Your task to perform on an android device: check android version Image 0: 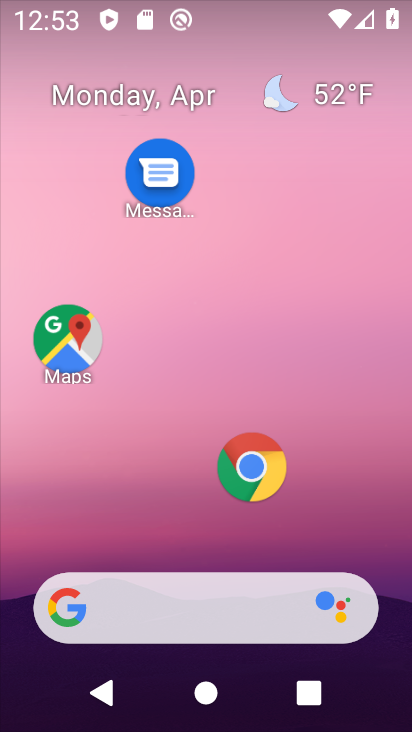
Step 0: drag from (206, 513) to (221, 166)
Your task to perform on an android device: check android version Image 1: 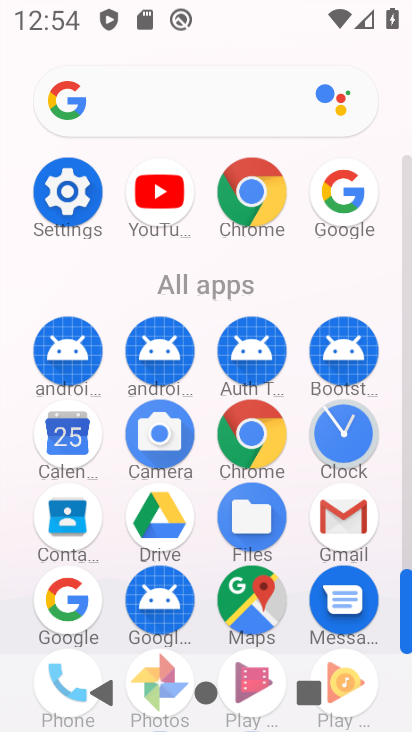
Step 1: click (66, 194)
Your task to perform on an android device: check android version Image 2: 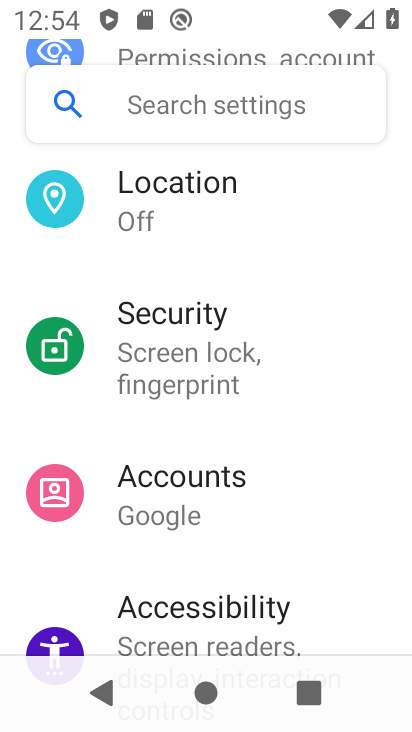
Step 2: drag from (248, 609) to (254, 272)
Your task to perform on an android device: check android version Image 3: 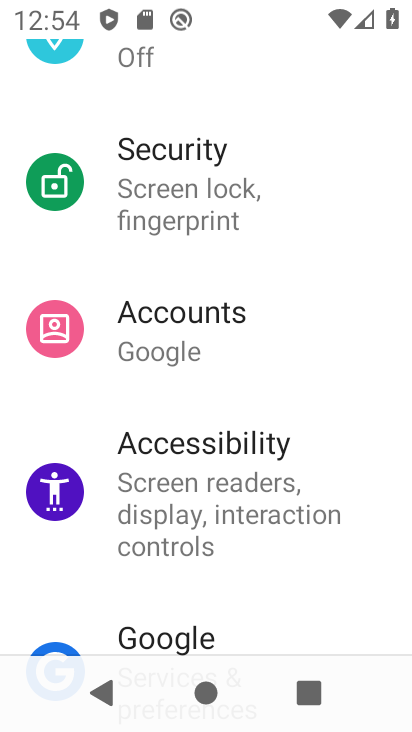
Step 3: drag from (242, 560) to (237, 227)
Your task to perform on an android device: check android version Image 4: 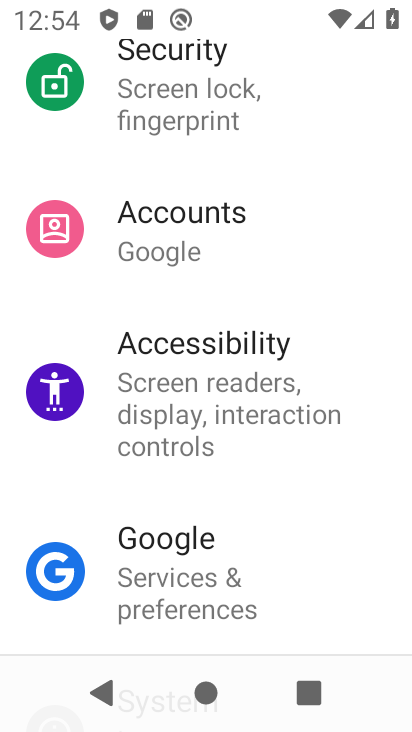
Step 4: drag from (214, 566) to (230, 214)
Your task to perform on an android device: check android version Image 5: 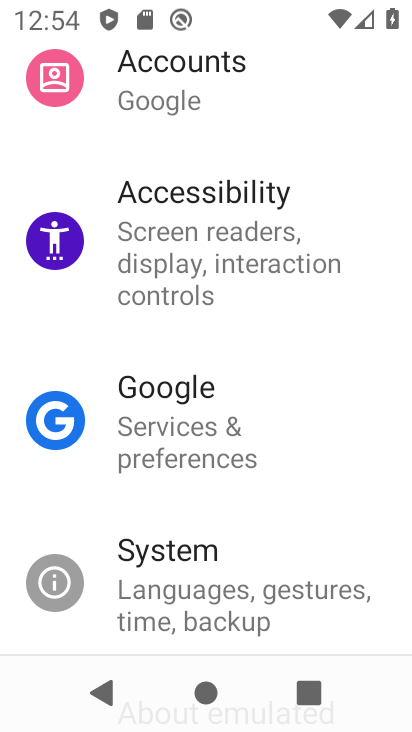
Step 5: drag from (249, 580) to (242, 269)
Your task to perform on an android device: check android version Image 6: 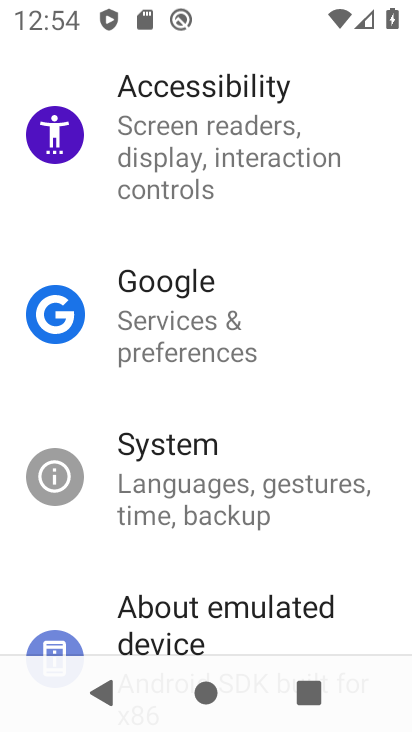
Step 6: drag from (217, 567) to (236, 250)
Your task to perform on an android device: check android version Image 7: 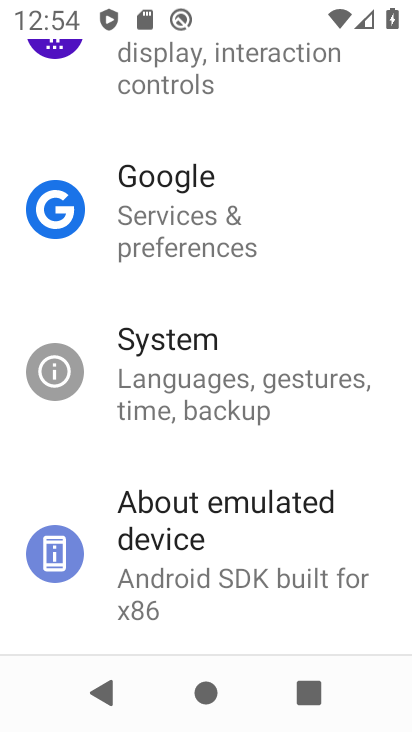
Step 7: drag from (232, 570) to (266, 262)
Your task to perform on an android device: check android version Image 8: 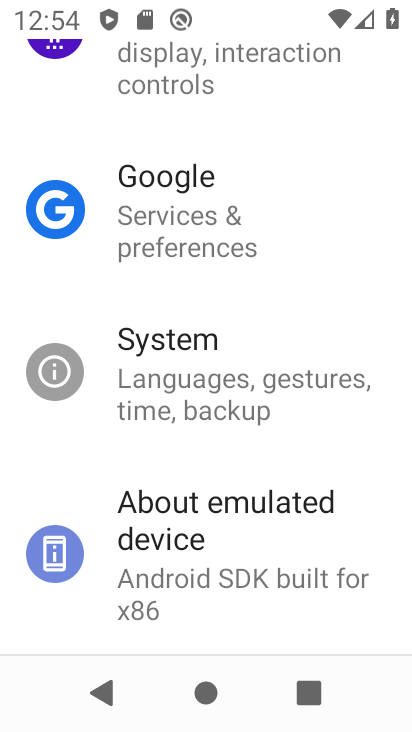
Step 8: click (220, 532)
Your task to perform on an android device: check android version Image 9: 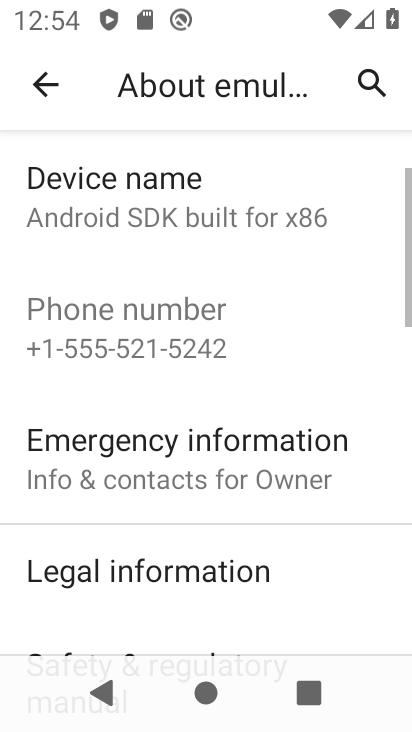
Step 9: drag from (247, 592) to (251, 268)
Your task to perform on an android device: check android version Image 10: 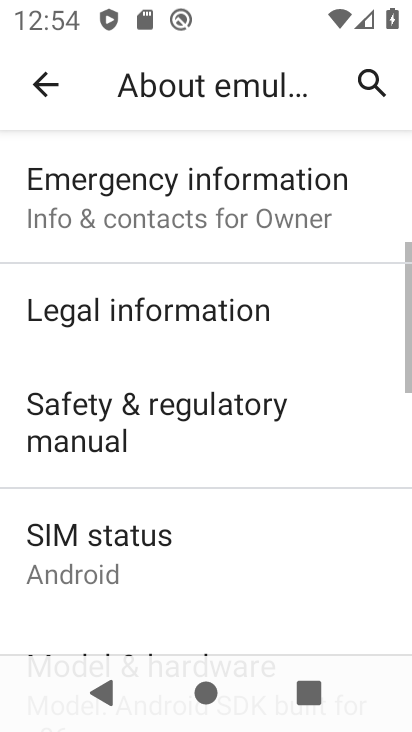
Step 10: drag from (229, 497) to (271, 269)
Your task to perform on an android device: check android version Image 11: 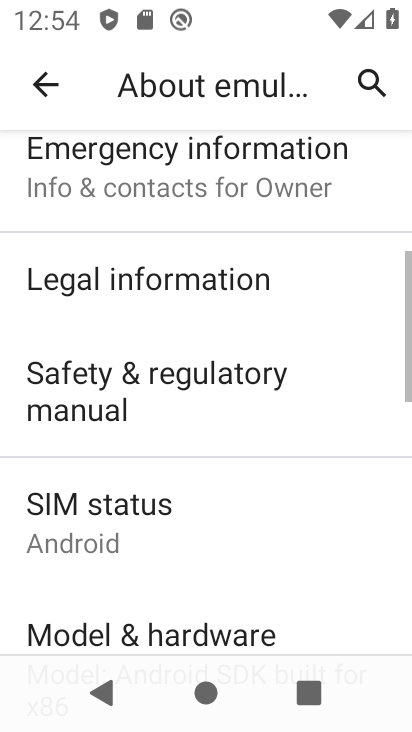
Step 11: drag from (254, 432) to (275, 276)
Your task to perform on an android device: check android version Image 12: 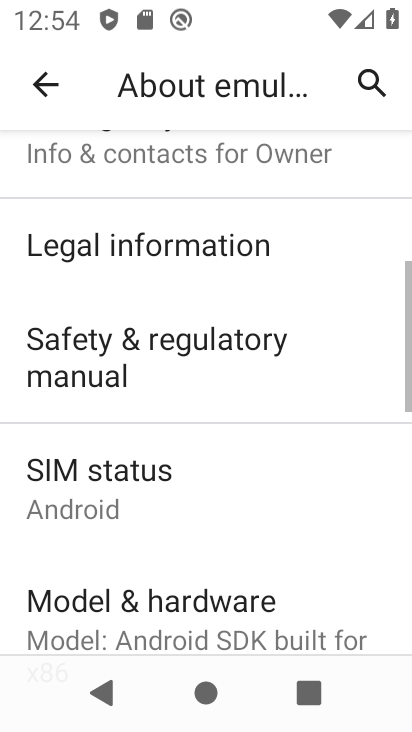
Step 12: drag from (249, 551) to (290, 277)
Your task to perform on an android device: check android version Image 13: 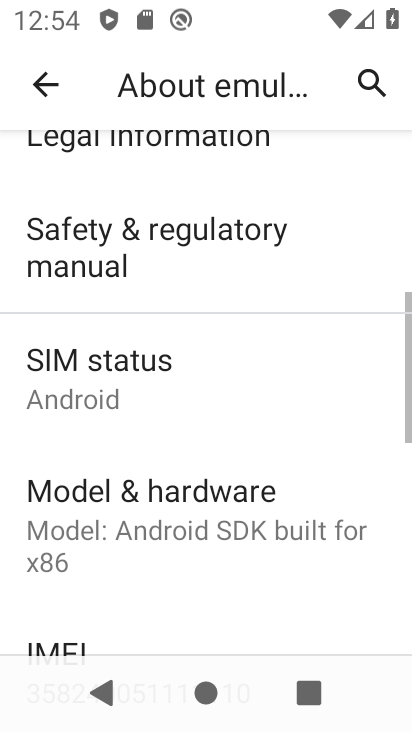
Step 13: drag from (280, 496) to (327, 292)
Your task to perform on an android device: check android version Image 14: 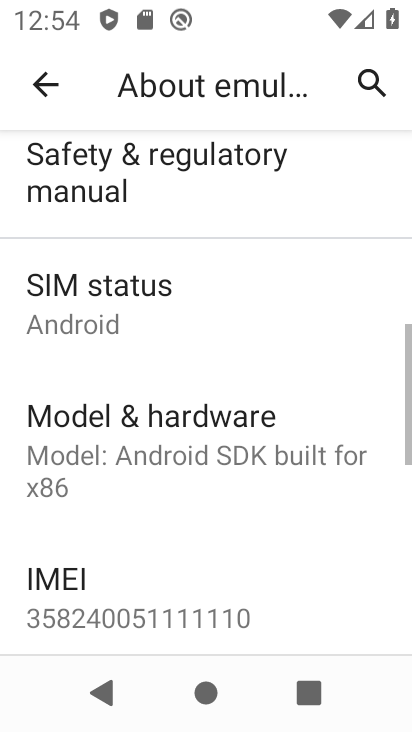
Step 14: drag from (276, 481) to (374, 269)
Your task to perform on an android device: check android version Image 15: 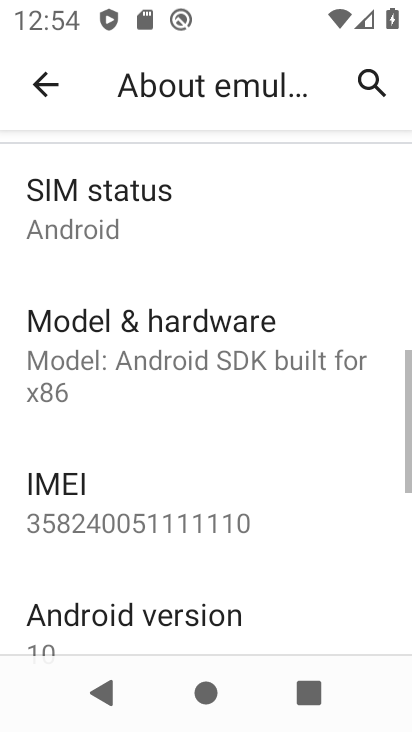
Step 15: drag from (256, 543) to (312, 237)
Your task to perform on an android device: check android version Image 16: 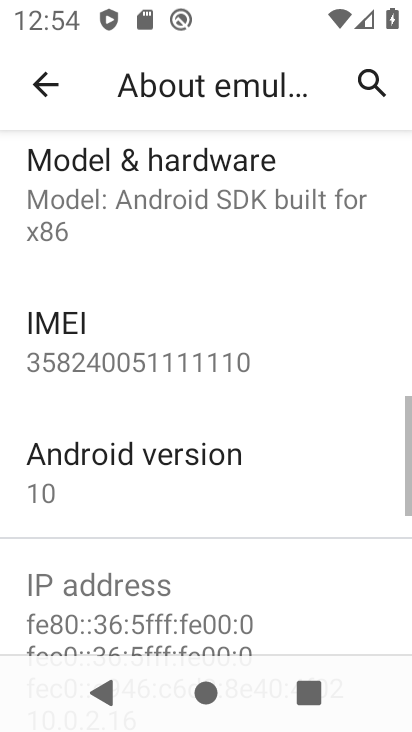
Step 16: click (203, 462)
Your task to perform on an android device: check android version Image 17: 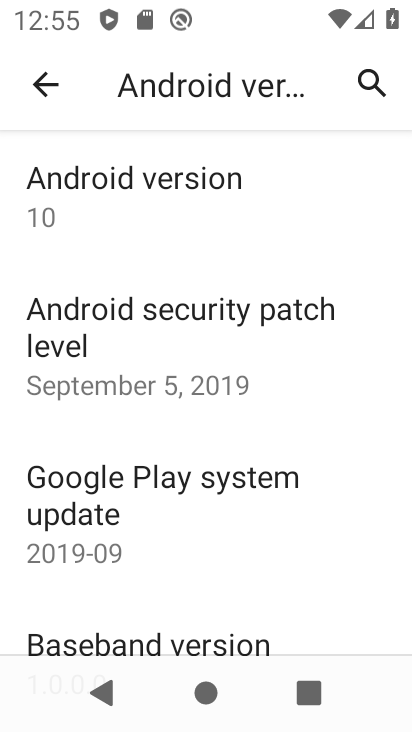
Step 17: click (109, 223)
Your task to perform on an android device: check android version Image 18: 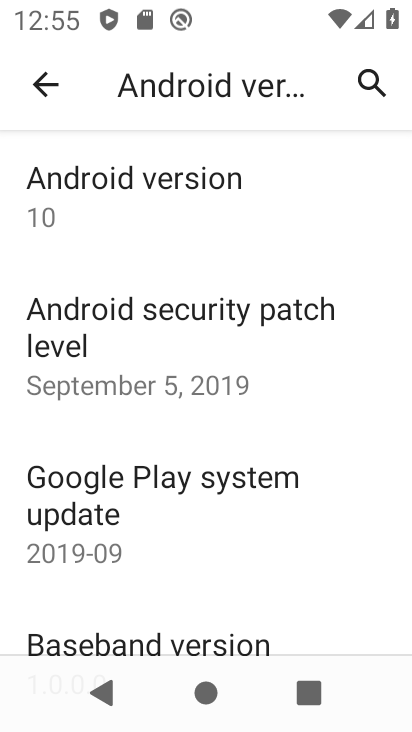
Step 18: click (119, 193)
Your task to perform on an android device: check android version Image 19: 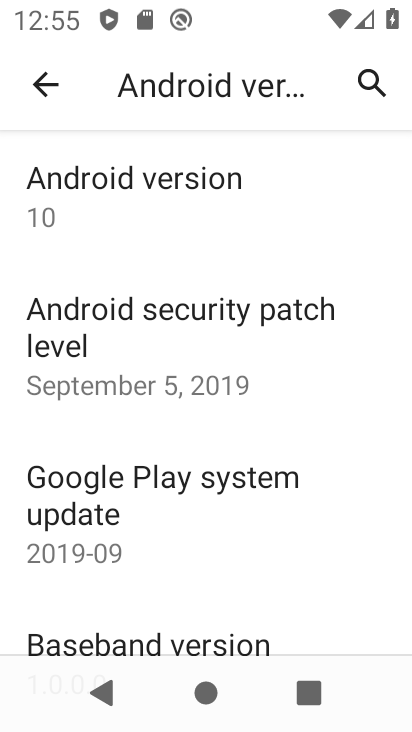
Step 19: task complete